Your task to perform on an android device: see tabs open on other devices in the chrome app Image 0: 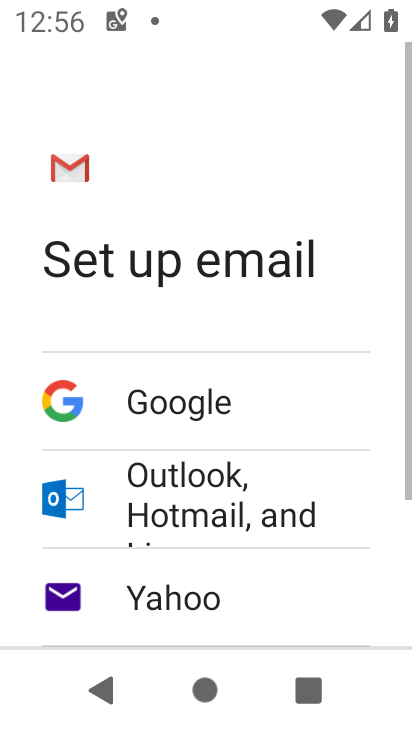
Step 0: press back button
Your task to perform on an android device: see tabs open on other devices in the chrome app Image 1: 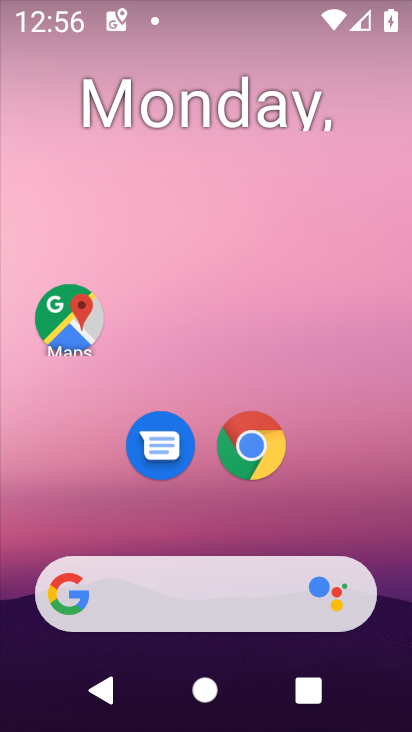
Step 1: click (246, 441)
Your task to perform on an android device: see tabs open on other devices in the chrome app Image 2: 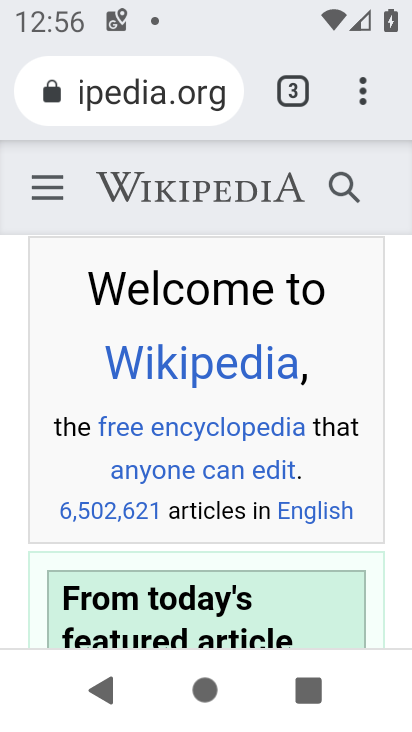
Step 2: click (362, 93)
Your task to perform on an android device: see tabs open on other devices in the chrome app Image 3: 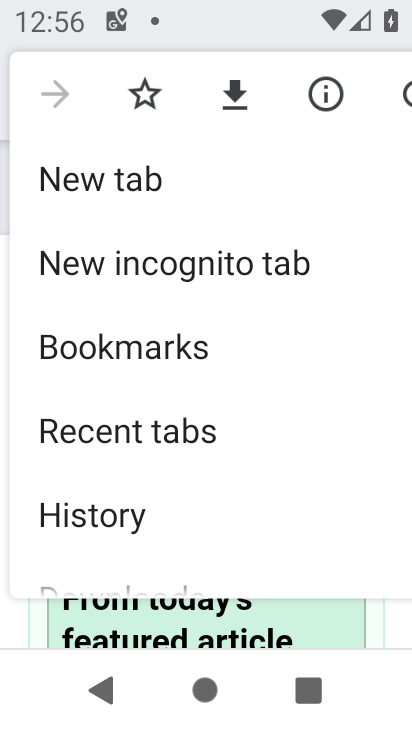
Step 3: click (170, 426)
Your task to perform on an android device: see tabs open on other devices in the chrome app Image 4: 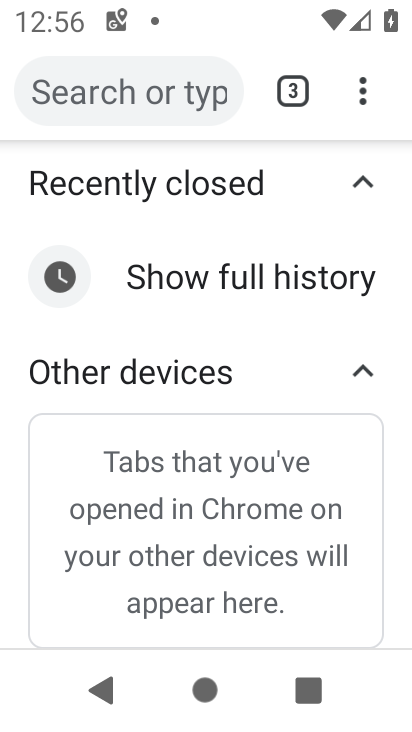
Step 4: click (384, 374)
Your task to perform on an android device: see tabs open on other devices in the chrome app Image 5: 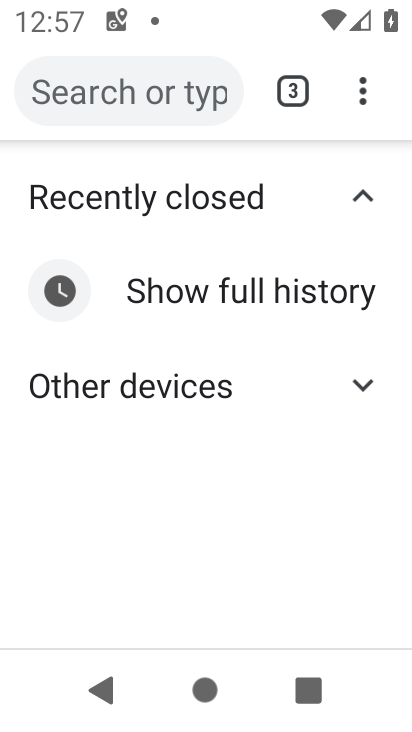
Step 5: task complete